Your task to perform on an android device: turn off airplane mode Image 0: 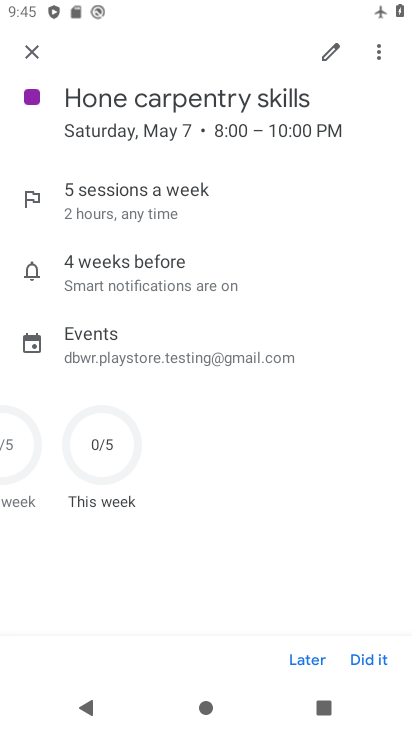
Step 0: press home button
Your task to perform on an android device: turn off airplane mode Image 1: 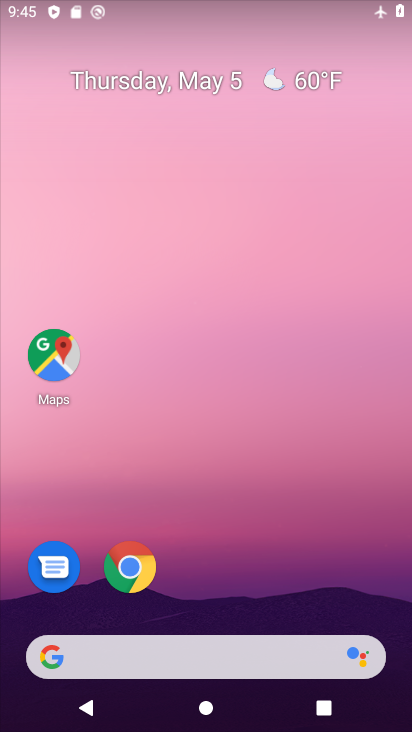
Step 1: drag from (277, 531) to (262, 67)
Your task to perform on an android device: turn off airplane mode Image 2: 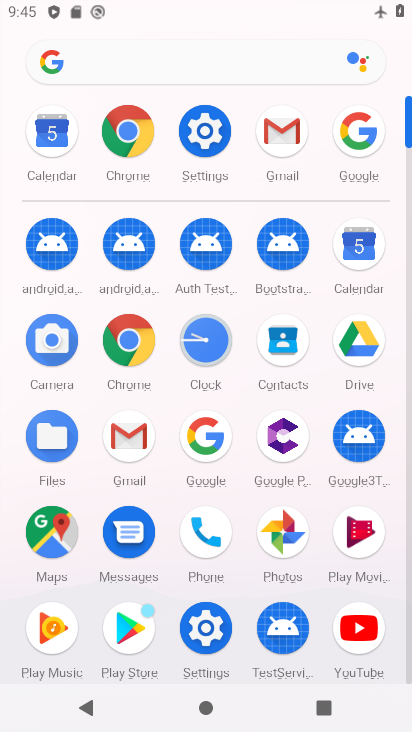
Step 2: click (208, 153)
Your task to perform on an android device: turn off airplane mode Image 3: 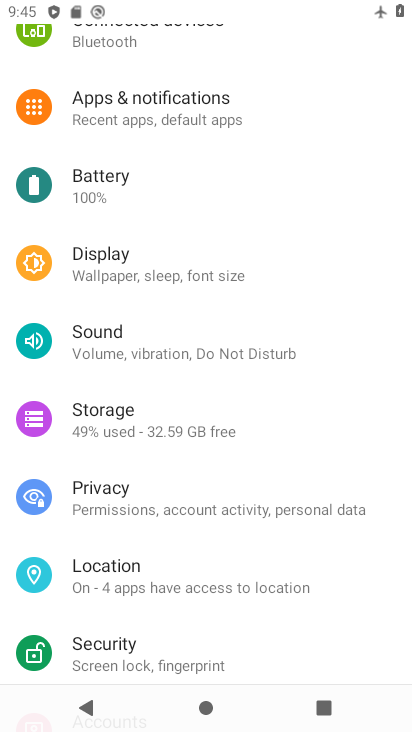
Step 3: drag from (244, 217) to (262, 598)
Your task to perform on an android device: turn off airplane mode Image 4: 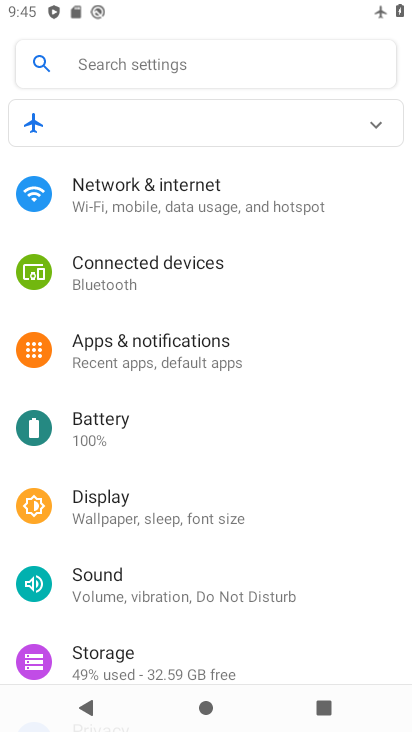
Step 4: click (194, 211)
Your task to perform on an android device: turn off airplane mode Image 5: 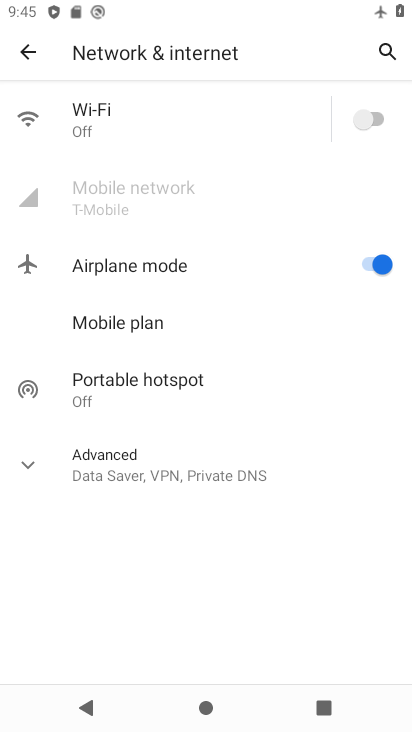
Step 5: click (369, 268)
Your task to perform on an android device: turn off airplane mode Image 6: 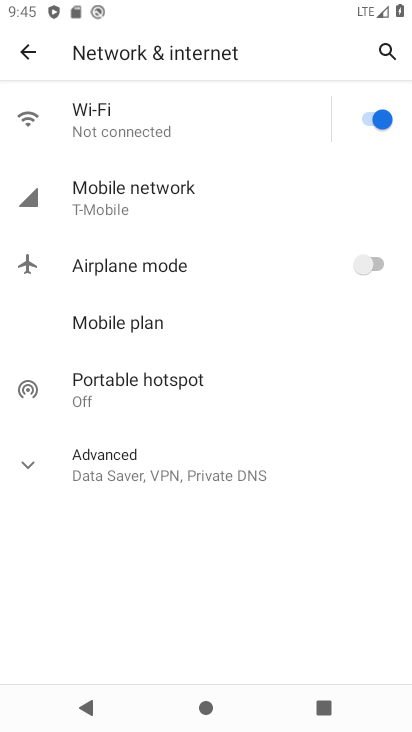
Step 6: task complete